Your task to perform on an android device: allow cookies in the chrome app Image 0: 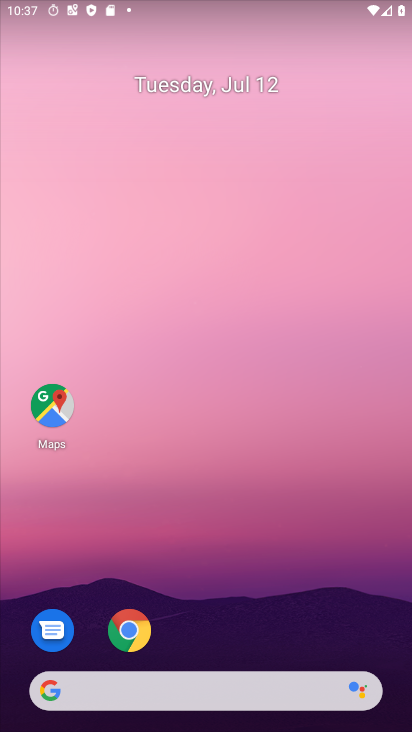
Step 0: drag from (208, 637) to (221, 130)
Your task to perform on an android device: allow cookies in the chrome app Image 1: 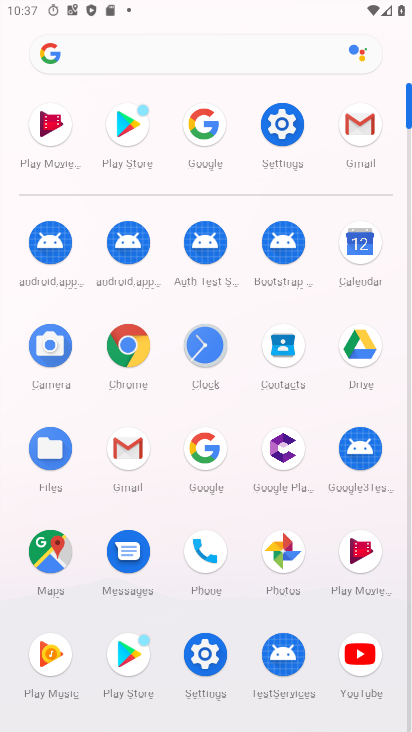
Step 1: click (128, 347)
Your task to perform on an android device: allow cookies in the chrome app Image 2: 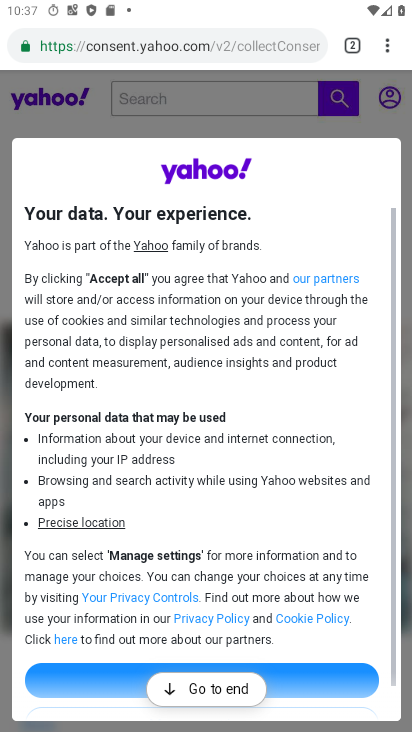
Step 2: click (385, 44)
Your task to perform on an android device: allow cookies in the chrome app Image 3: 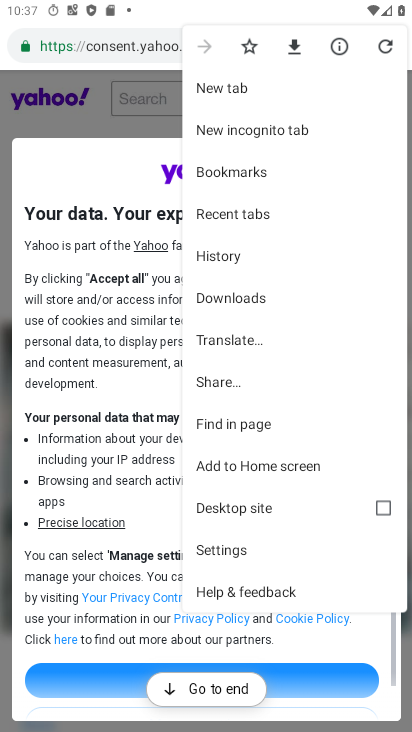
Step 3: click (253, 537)
Your task to perform on an android device: allow cookies in the chrome app Image 4: 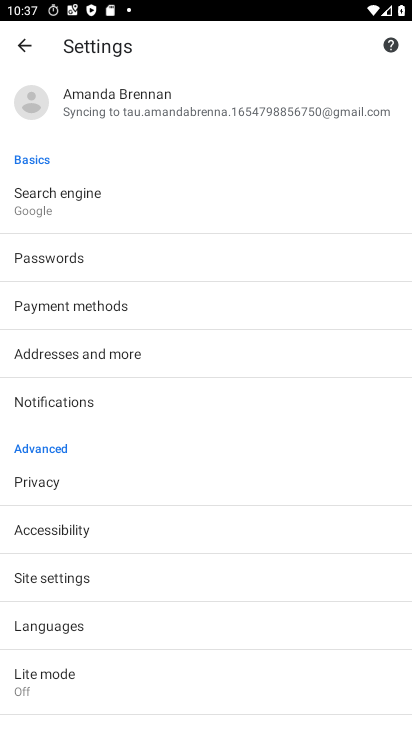
Step 4: click (101, 580)
Your task to perform on an android device: allow cookies in the chrome app Image 5: 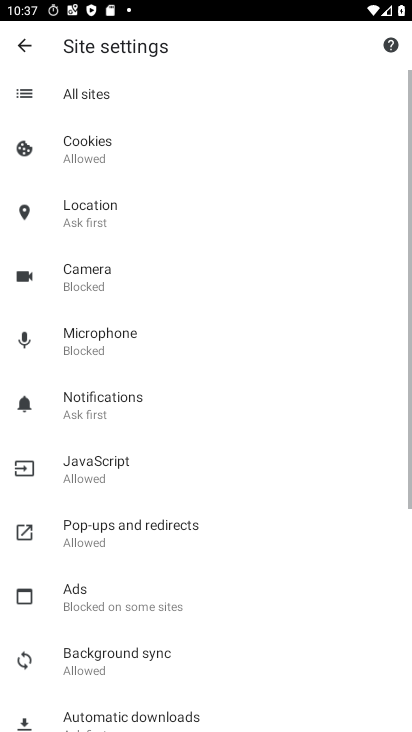
Step 5: click (103, 134)
Your task to perform on an android device: allow cookies in the chrome app Image 6: 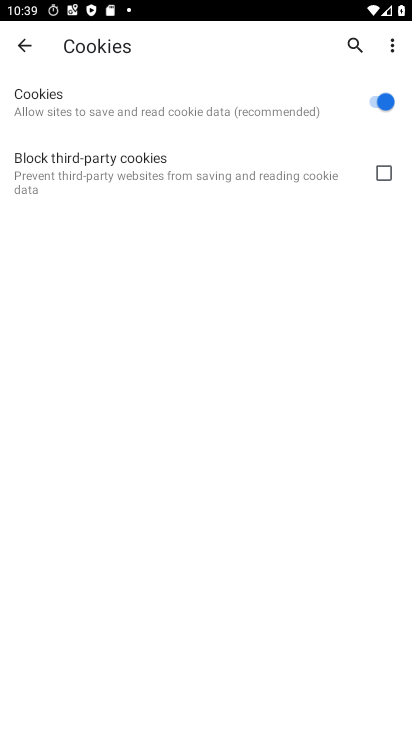
Step 6: task complete